Your task to perform on an android device: Open settings Image 0: 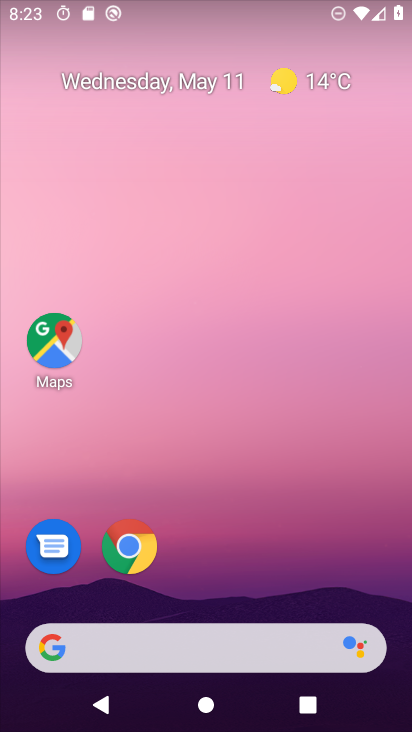
Step 0: drag from (226, 637) to (203, 81)
Your task to perform on an android device: Open settings Image 1: 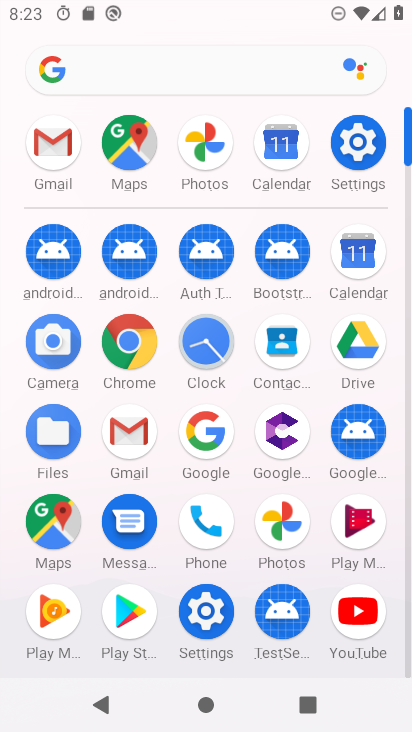
Step 1: click (346, 142)
Your task to perform on an android device: Open settings Image 2: 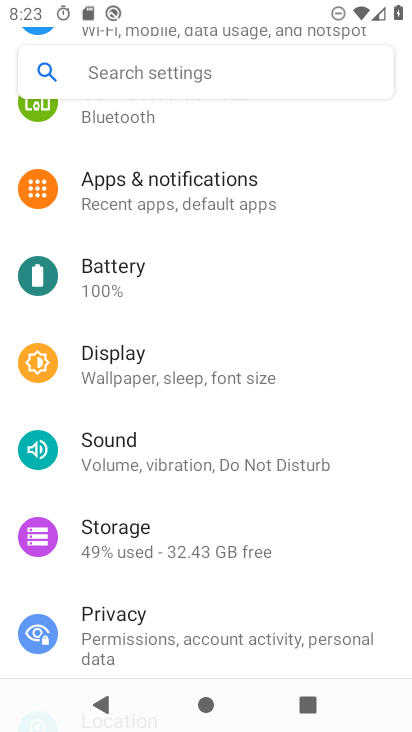
Step 2: task complete